Your task to perform on an android device: Show me popular games on the Play Store Image 0: 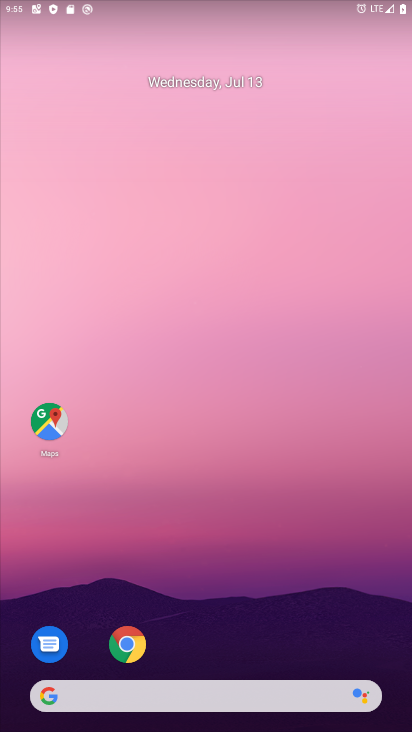
Step 0: click (197, 616)
Your task to perform on an android device: Show me popular games on the Play Store Image 1: 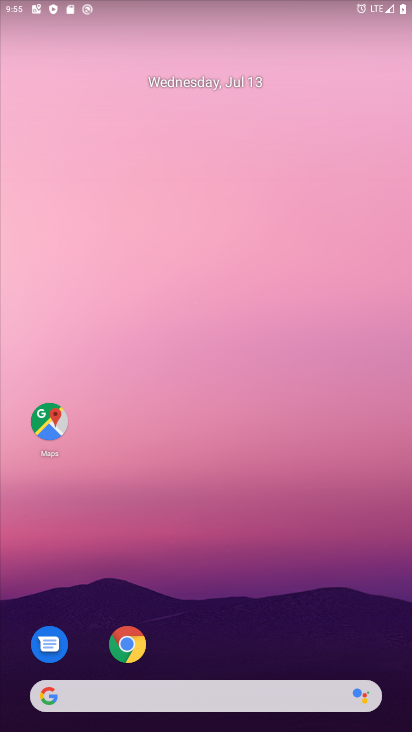
Step 1: drag from (197, 314) to (197, 136)
Your task to perform on an android device: Show me popular games on the Play Store Image 2: 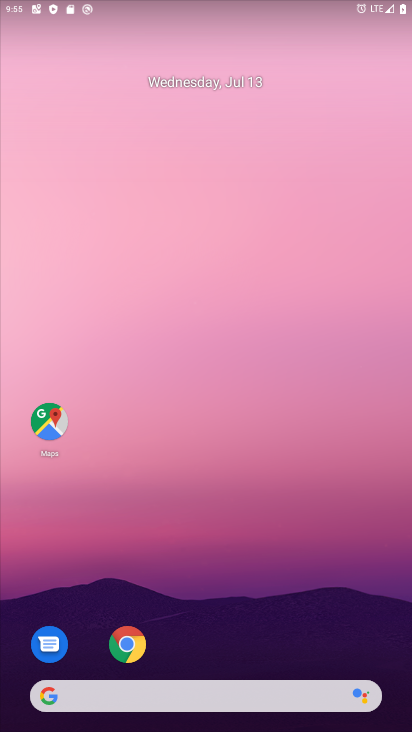
Step 2: drag from (223, 725) to (230, 108)
Your task to perform on an android device: Show me popular games on the Play Store Image 3: 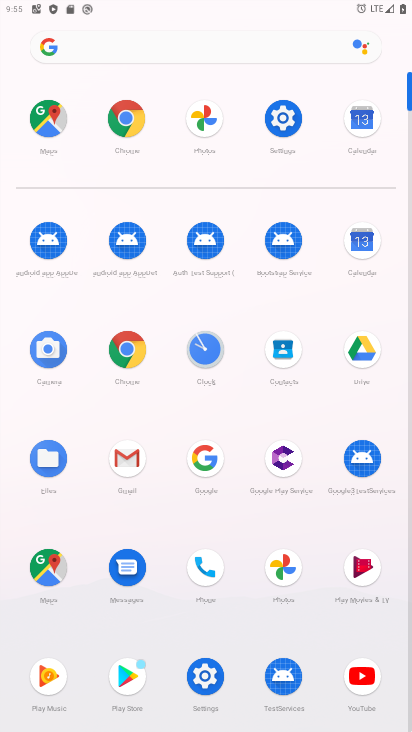
Step 3: click (126, 666)
Your task to perform on an android device: Show me popular games on the Play Store Image 4: 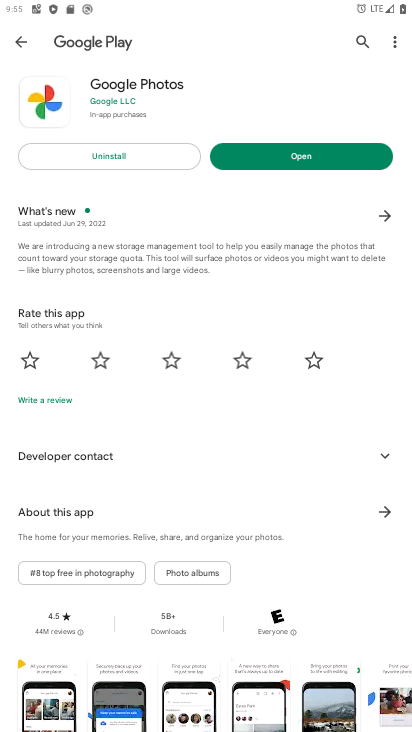
Step 4: click (23, 42)
Your task to perform on an android device: Show me popular games on the Play Store Image 5: 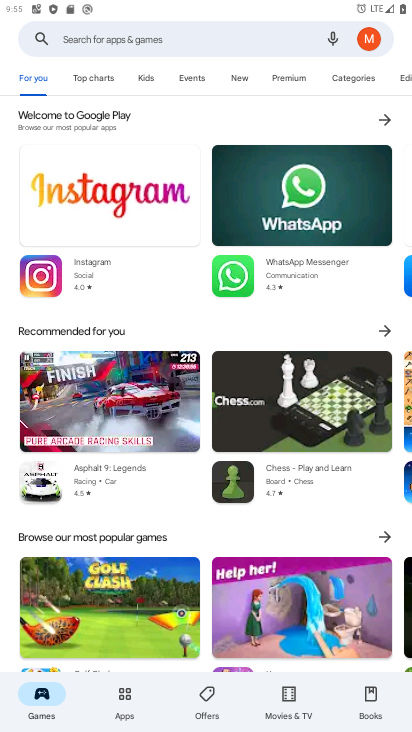
Step 5: click (384, 540)
Your task to perform on an android device: Show me popular games on the Play Store Image 6: 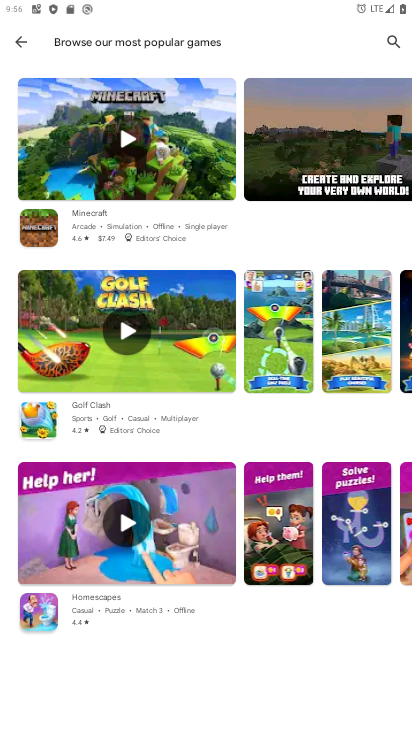
Step 6: task complete